Your task to perform on an android device: create a new album in the google photos Image 0: 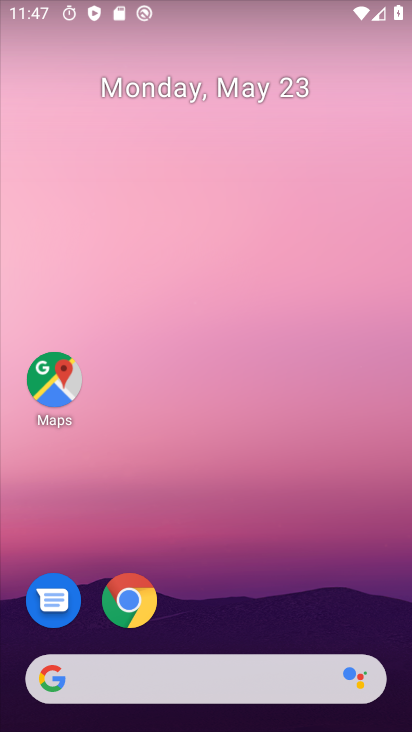
Step 0: click (261, 116)
Your task to perform on an android device: create a new album in the google photos Image 1: 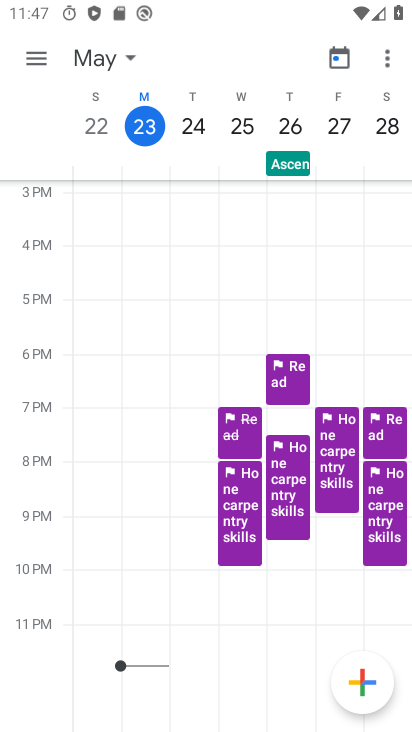
Step 1: press home button
Your task to perform on an android device: create a new album in the google photos Image 2: 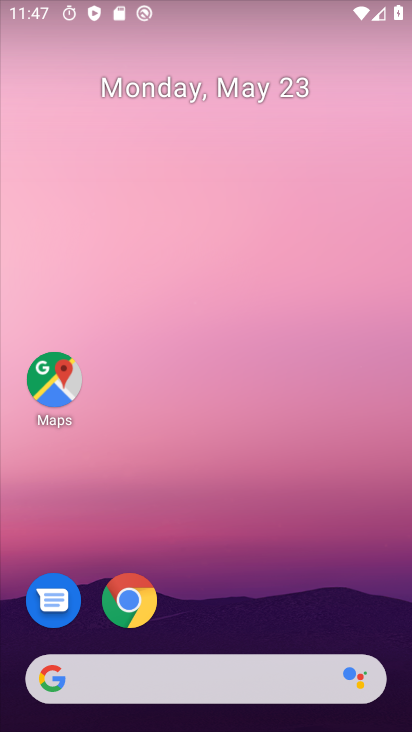
Step 2: drag from (297, 596) to (290, 193)
Your task to perform on an android device: create a new album in the google photos Image 3: 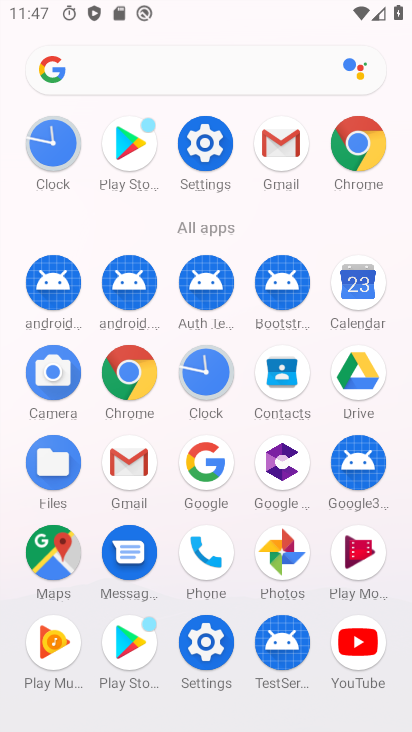
Step 3: click (292, 541)
Your task to perform on an android device: create a new album in the google photos Image 4: 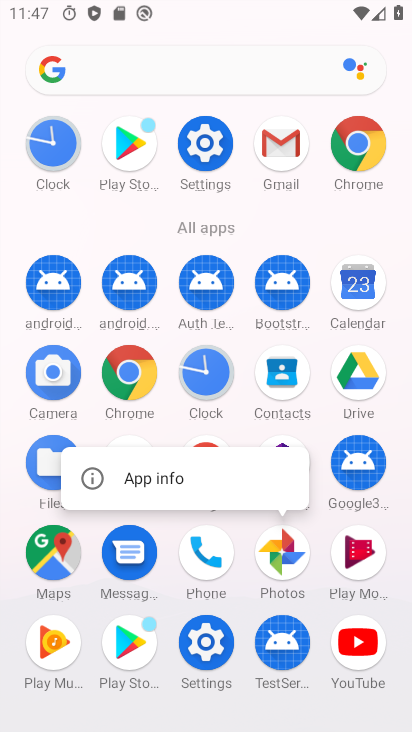
Step 4: click (286, 545)
Your task to perform on an android device: create a new album in the google photos Image 5: 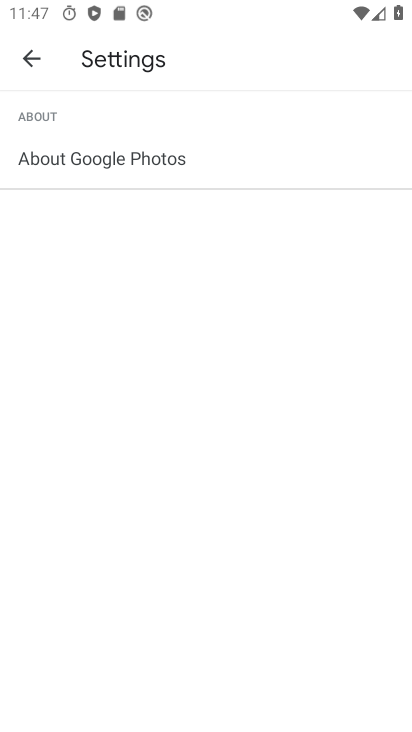
Step 5: click (33, 56)
Your task to perform on an android device: create a new album in the google photos Image 6: 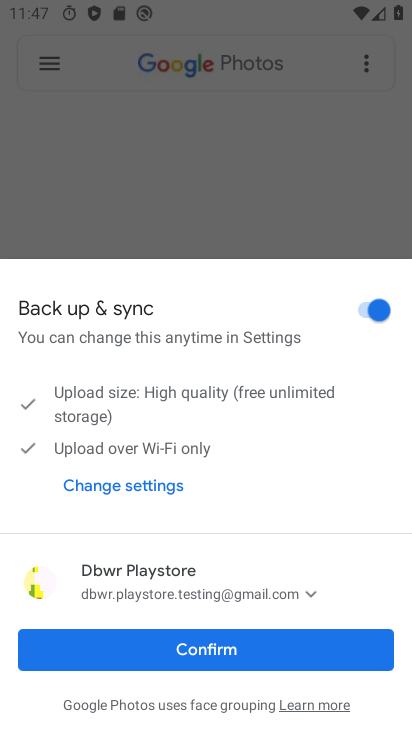
Step 6: click (232, 664)
Your task to perform on an android device: create a new album in the google photos Image 7: 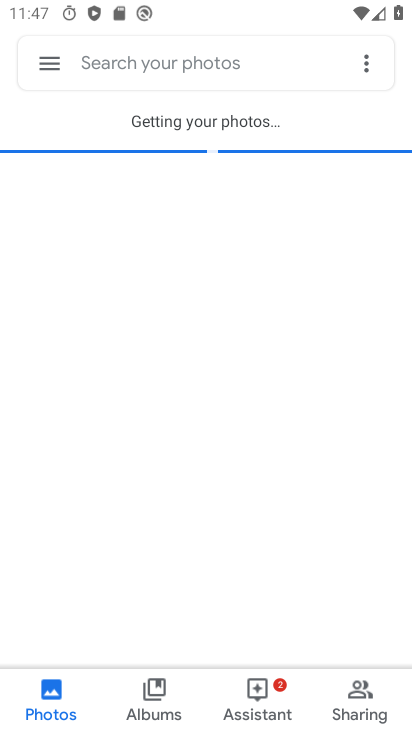
Step 7: click (163, 698)
Your task to perform on an android device: create a new album in the google photos Image 8: 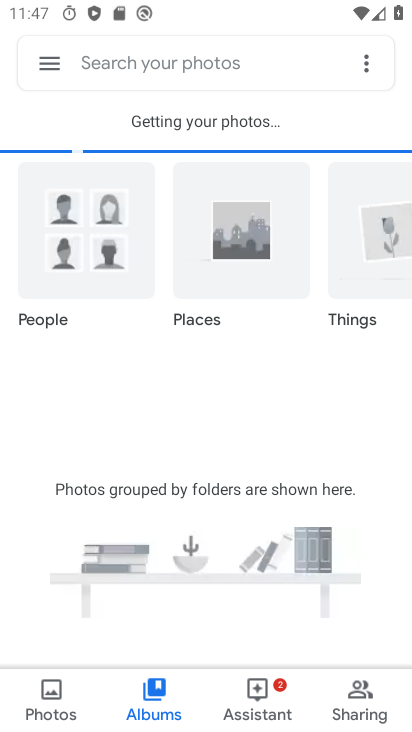
Step 8: click (366, 60)
Your task to perform on an android device: create a new album in the google photos Image 9: 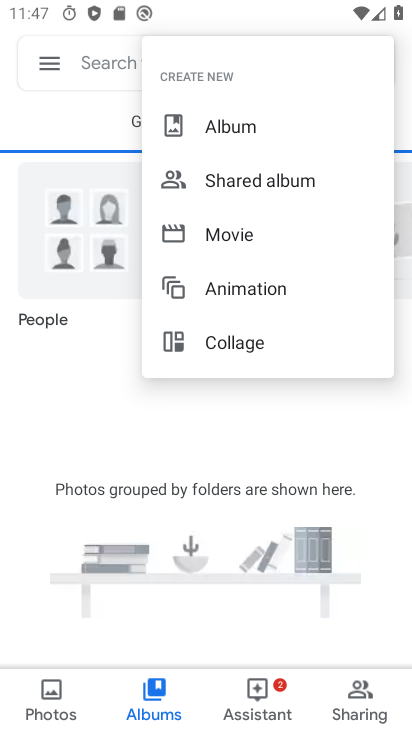
Step 9: click (244, 125)
Your task to perform on an android device: create a new album in the google photos Image 10: 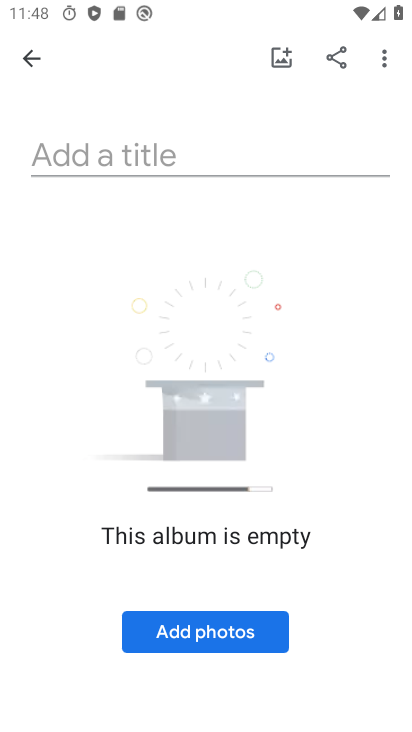
Step 10: click (200, 158)
Your task to perform on an android device: create a new album in the google photos Image 11: 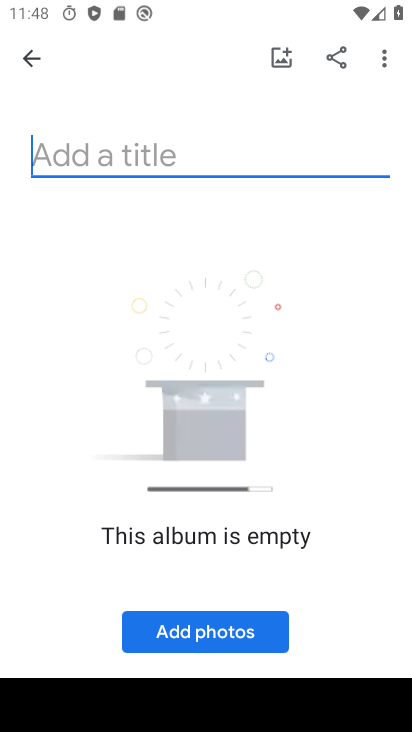
Step 11: type "darbar"
Your task to perform on an android device: create a new album in the google photos Image 12: 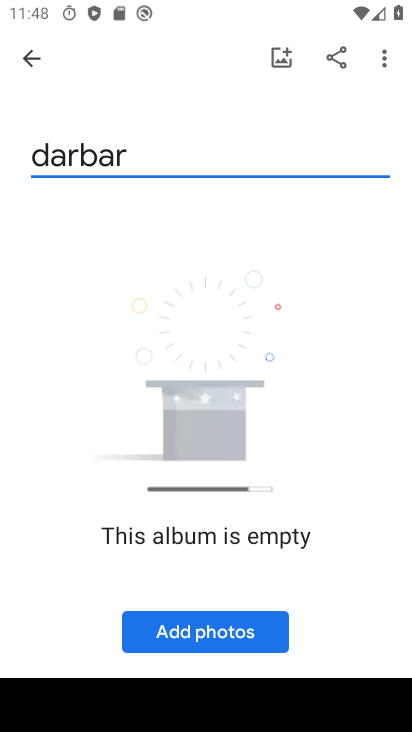
Step 12: click (229, 619)
Your task to perform on an android device: create a new album in the google photos Image 13: 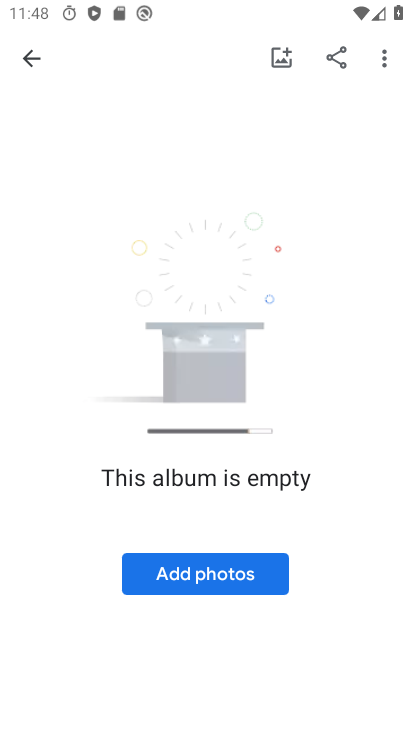
Step 13: click (216, 567)
Your task to perform on an android device: create a new album in the google photos Image 14: 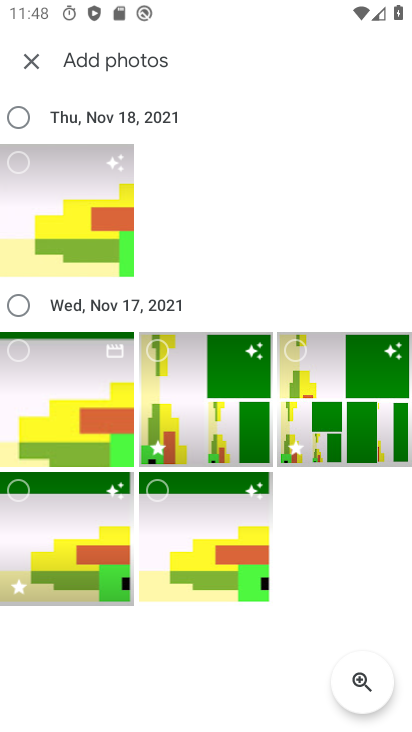
Step 14: click (34, 219)
Your task to perform on an android device: create a new album in the google photos Image 15: 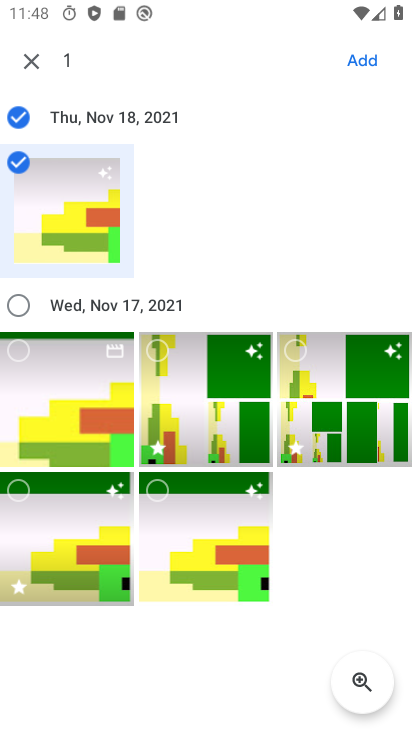
Step 15: click (357, 52)
Your task to perform on an android device: create a new album in the google photos Image 16: 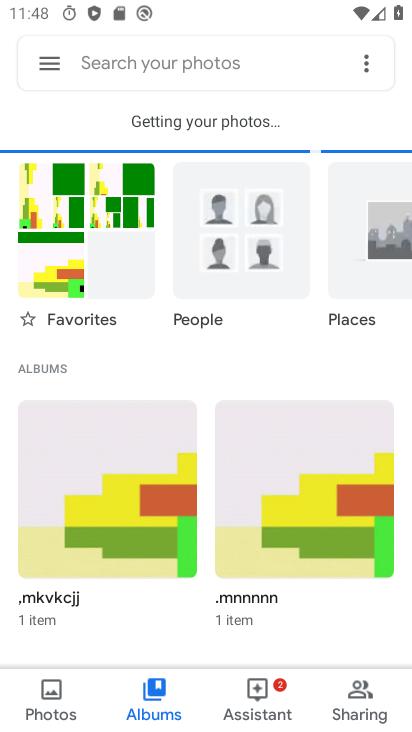
Step 16: task complete